Your task to perform on an android device: Open Google Chrome Image 0: 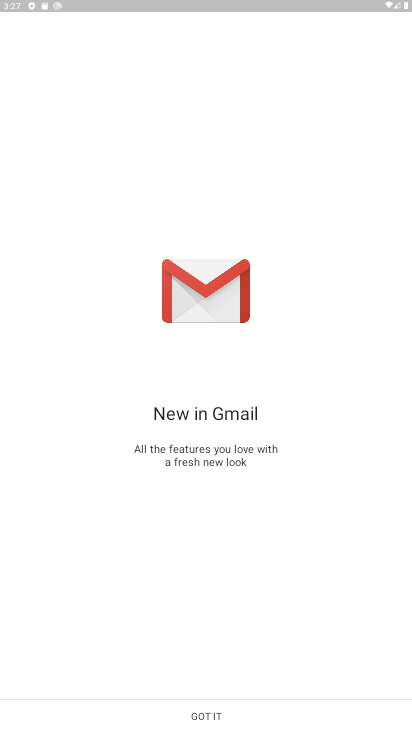
Step 0: press home button
Your task to perform on an android device: Open Google Chrome Image 1: 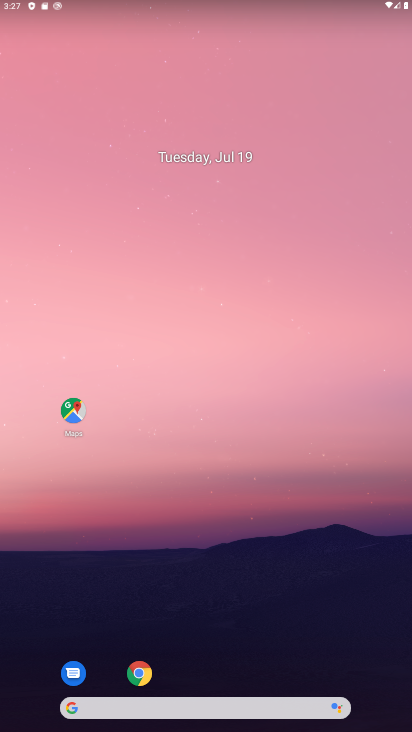
Step 1: drag from (255, 635) to (235, 86)
Your task to perform on an android device: Open Google Chrome Image 2: 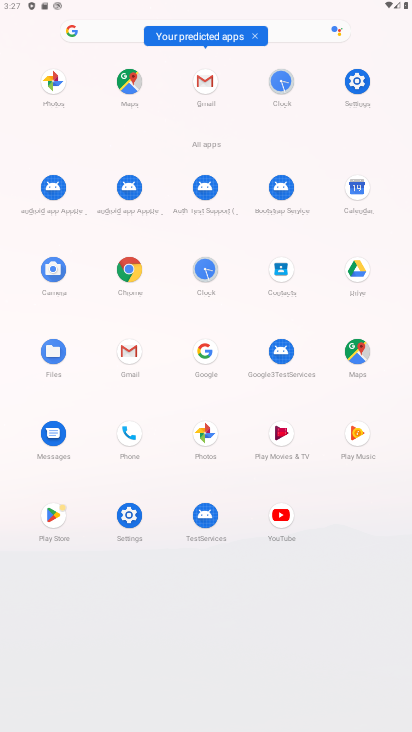
Step 2: click (137, 274)
Your task to perform on an android device: Open Google Chrome Image 3: 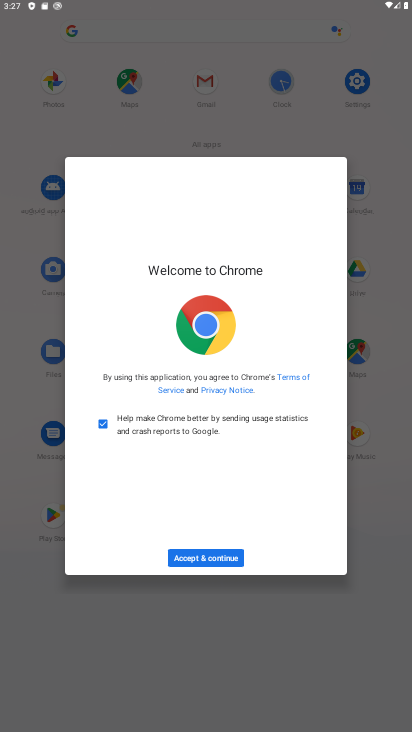
Step 3: click (230, 558)
Your task to perform on an android device: Open Google Chrome Image 4: 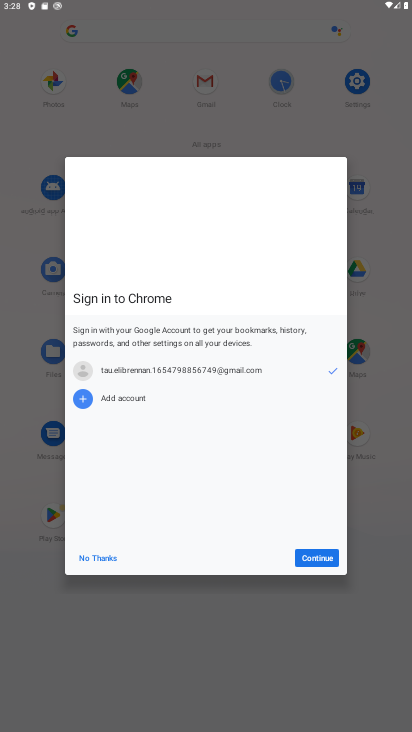
Step 4: click (327, 555)
Your task to perform on an android device: Open Google Chrome Image 5: 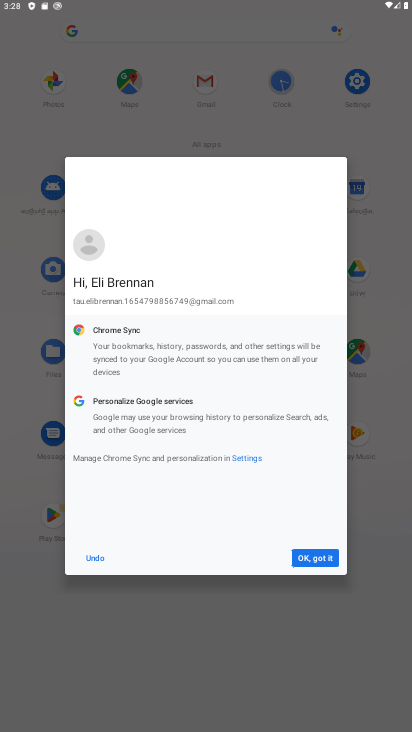
Step 5: click (327, 561)
Your task to perform on an android device: Open Google Chrome Image 6: 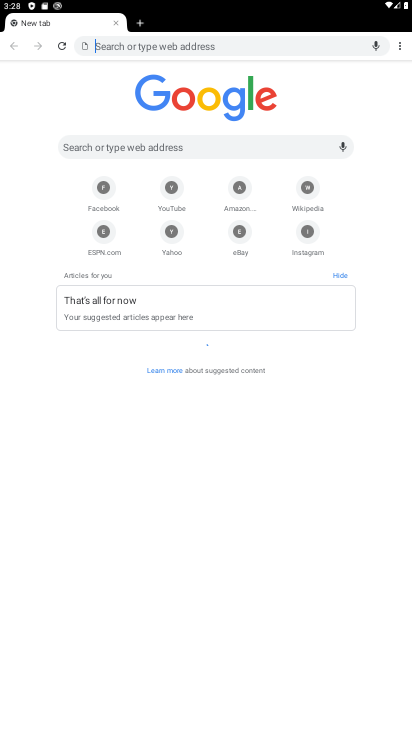
Step 6: task complete